Your task to perform on an android device: turn off javascript in the chrome app Image 0: 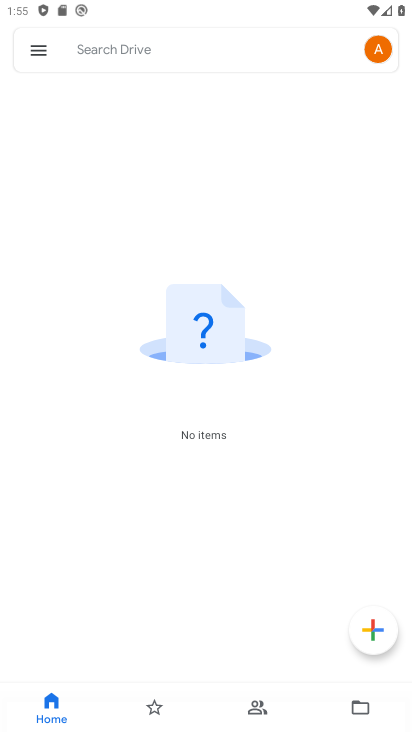
Step 0: press home button
Your task to perform on an android device: turn off javascript in the chrome app Image 1: 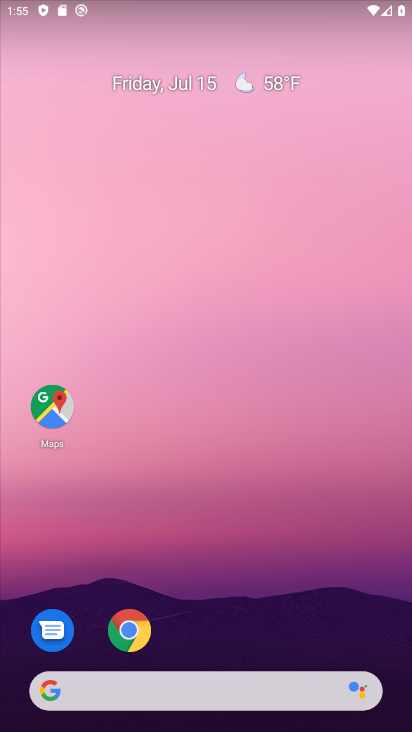
Step 1: drag from (340, 608) to (347, 71)
Your task to perform on an android device: turn off javascript in the chrome app Image 2: 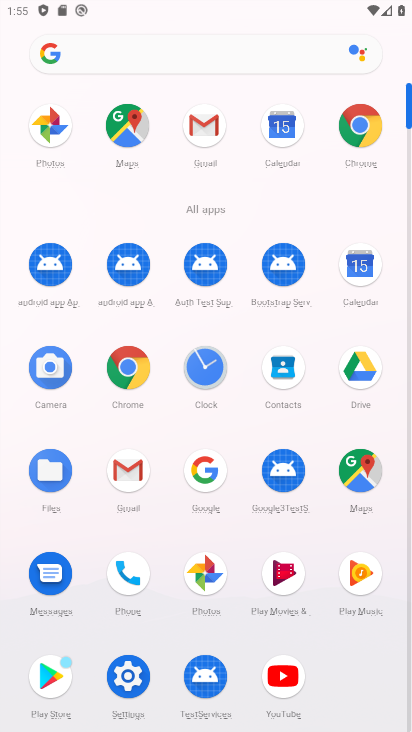
Step 2: click (140, 355)
Your task to perform on an android device: turn off javascript in the chrome app Image 3: 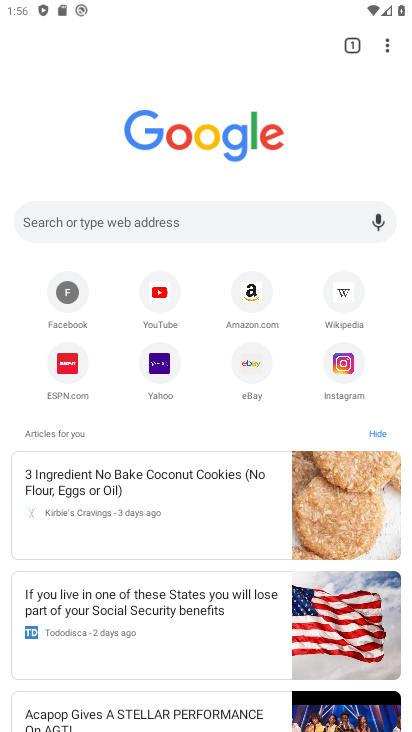
Step 3: click (384, 50)
Your task to perform on an android device: turn off javascript in the chrome app Image 4: 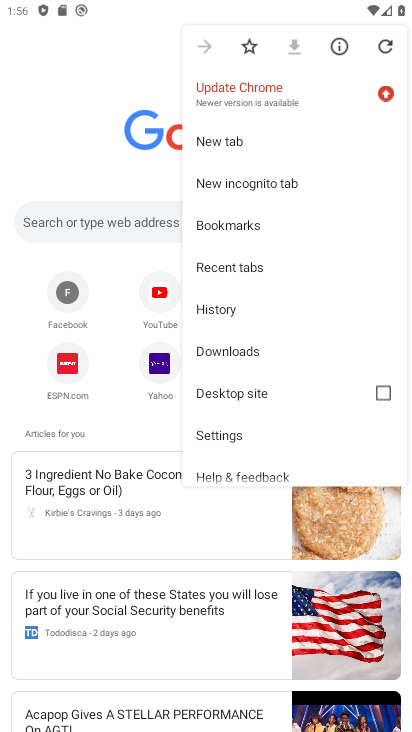
Step 4: click (284, 432)
Your task to perform on an android device: turn off javascript in the chrome app Image 5: 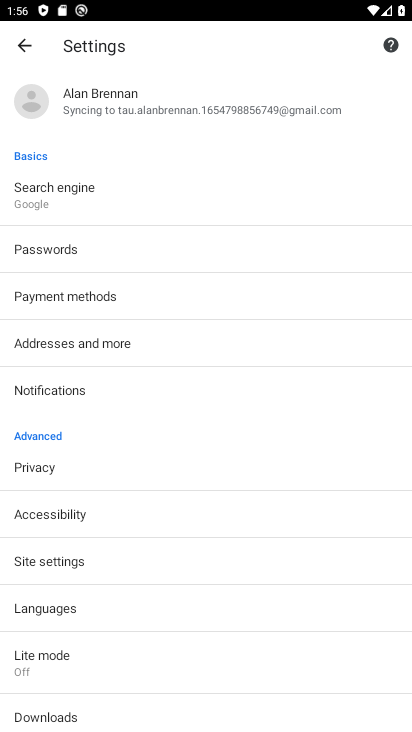
Step 5: drag from (285, 476) to (289, 402)
Your task to perform on an android device: turn off javascript in the chrome app Image 6: 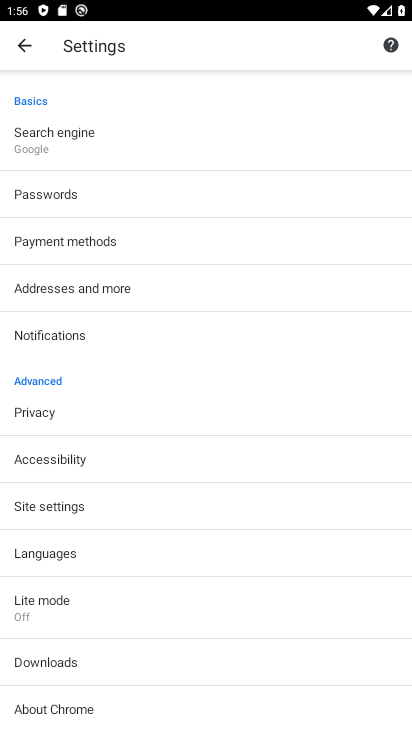
Step 6: drag from (307, 465) to (304, 383)
Your task to perform on an android device: turn off javascript in the chrome app Image 7: 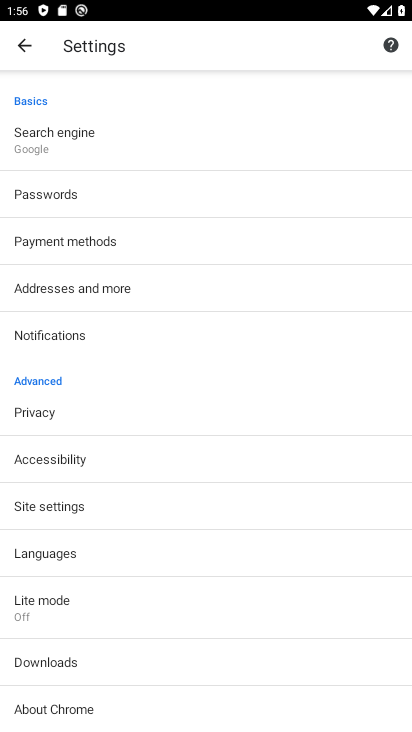
Step 7: click (299, 514)
Your task to perform on an android device: turn off javascript in the chrome app Image 8: 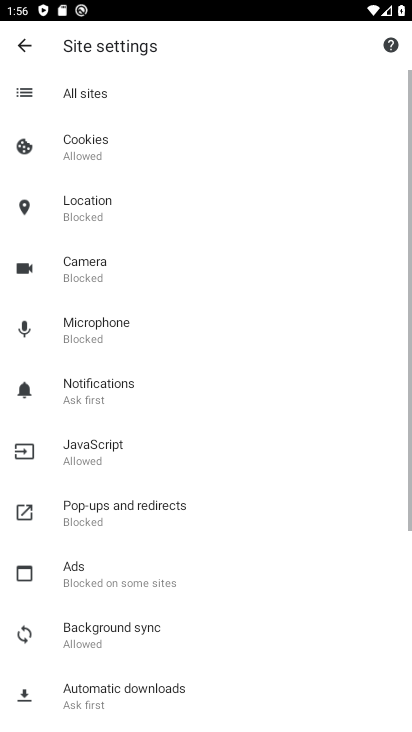
Step 8: drag from (296, 530) to (299, 462)
Your task to perform on an android device: turn off javascript in the chrome app Image 9: 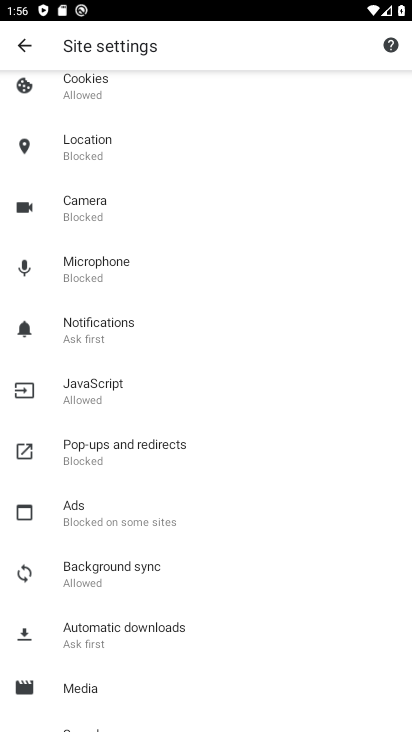
Step 9: drag from (299, 531) to (296, 471)
Your task to perform on an android device: turn off javascript in the chrome app Image 10: 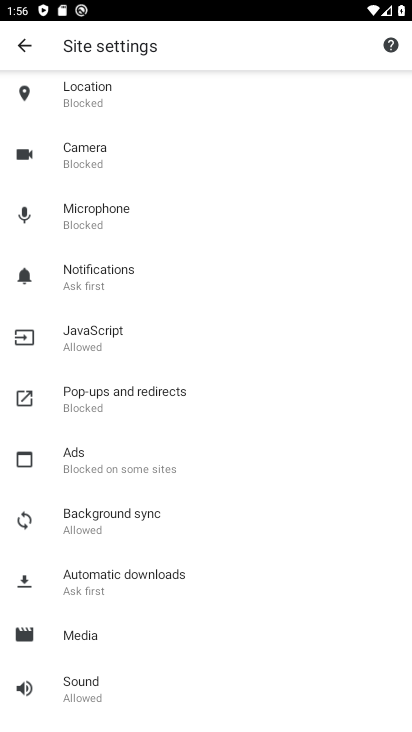
Step 10: drag from (291, 529) to (291, 451)
Your task to perform on an android device: turn off javascript in the chrome app Image 11: 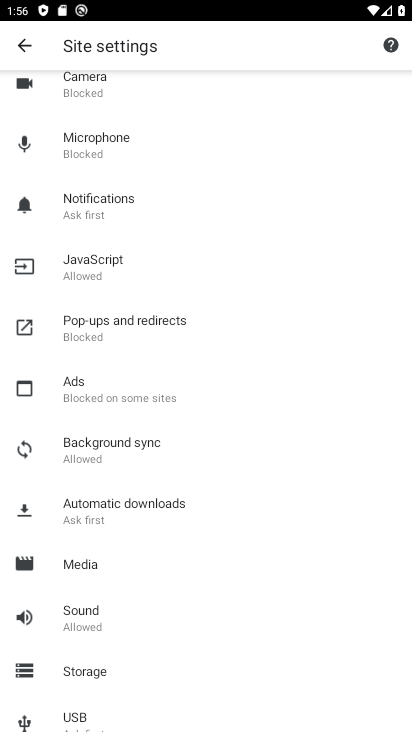
Step 11: drag from (290, 514) to (289, 422)
Your task to perform on an android device: turn off javascript in the chrome app Image 12: 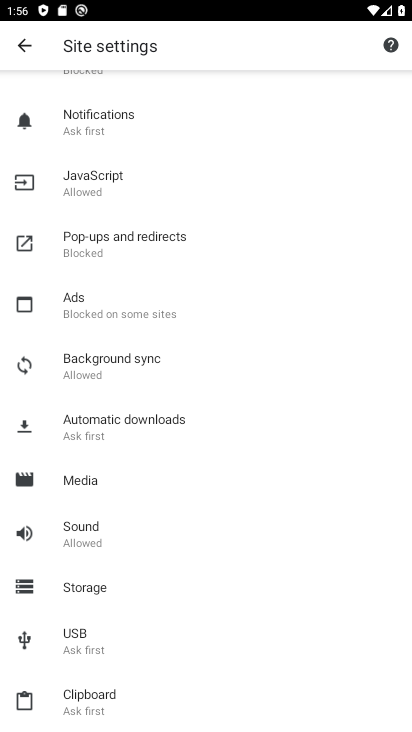
Step 12: click (241, 191)
Your task to perform on an android device: turn off javascript in the chrome app Image 13: 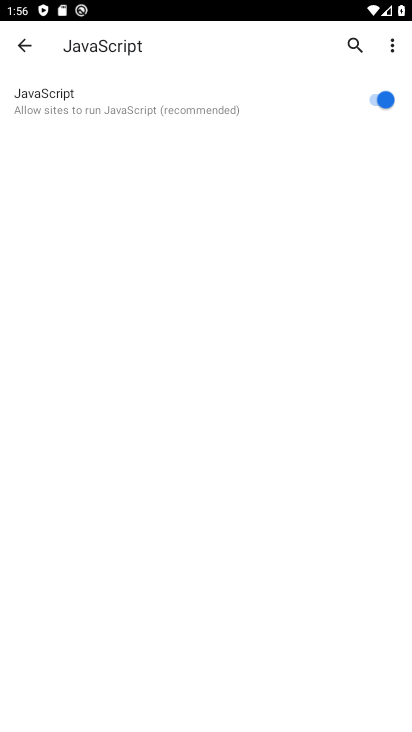
Step 13: click (381, 95)
Your task to perform on an android device: turn off javascript in the chrome app Image 14: 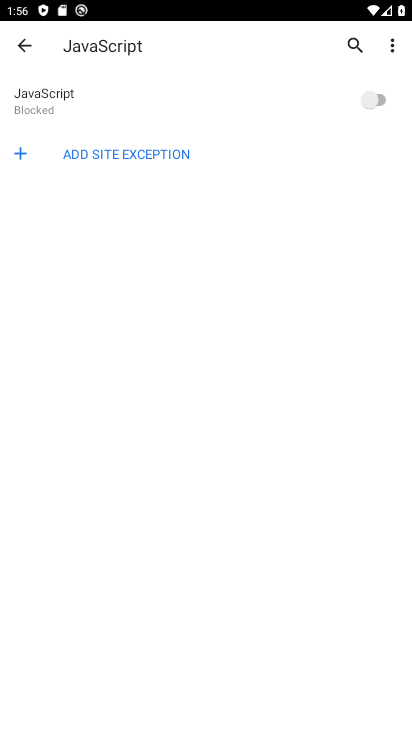
Step 14: task complete